Your task to perform on an android device: open a new tab in the chrome app Image 0: 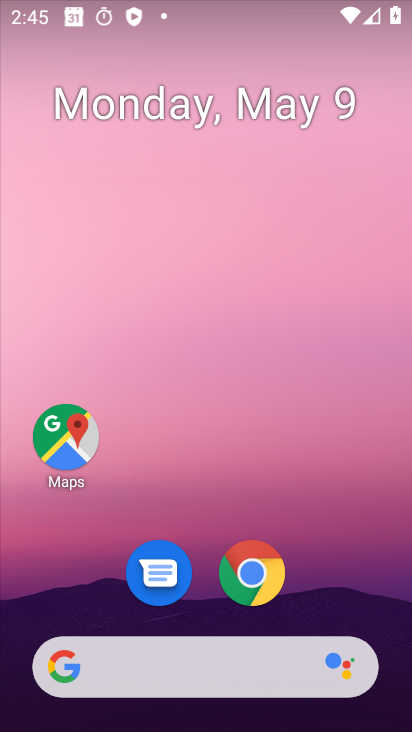
Step 0: drag from (290, 647) to (42, 4)
Your task to perform on an android device: open a new tab in the chrome app Image 1: 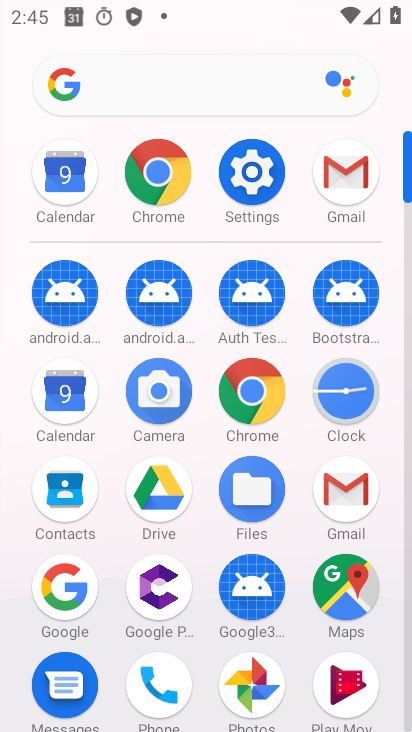
Step 1: click (159, 164)
Your task to perform on an android device: open a new tab in the chrome app Image 2: 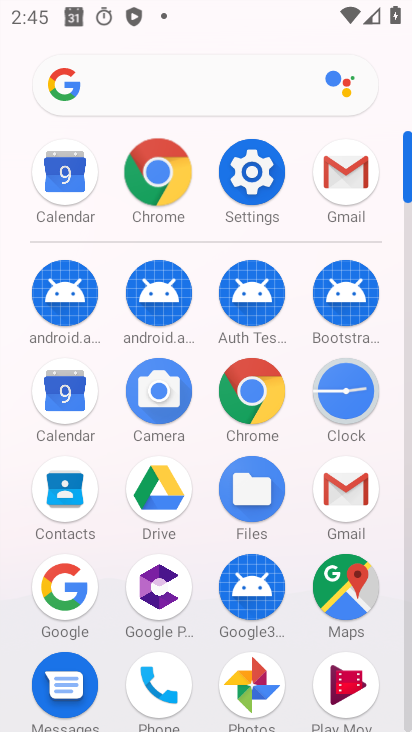
Step 2: click (155, 165)
Your task to perform on an android device: open a new tab in the chrome app Image 3: 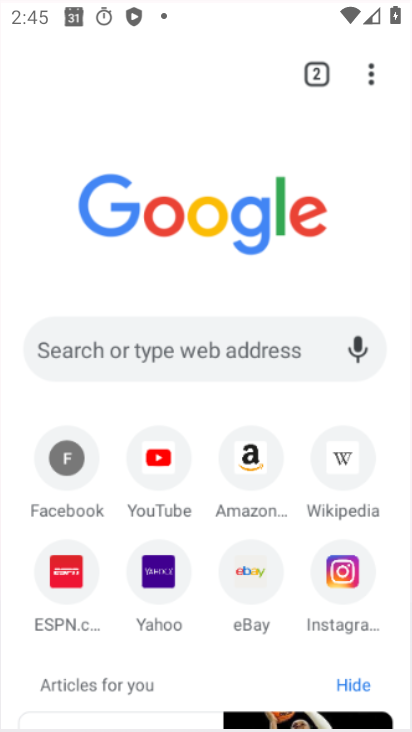
Step 3: click (152, 166)
Your task to perform on an android device: open a new tab in the chrome app Image 4: 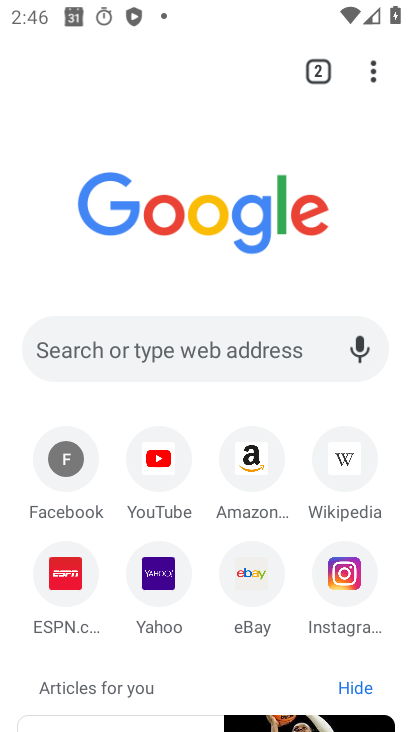
Step 4: click (382, 72)
Your task to perform on an android device: open a new tab in the chrome app Image 5: 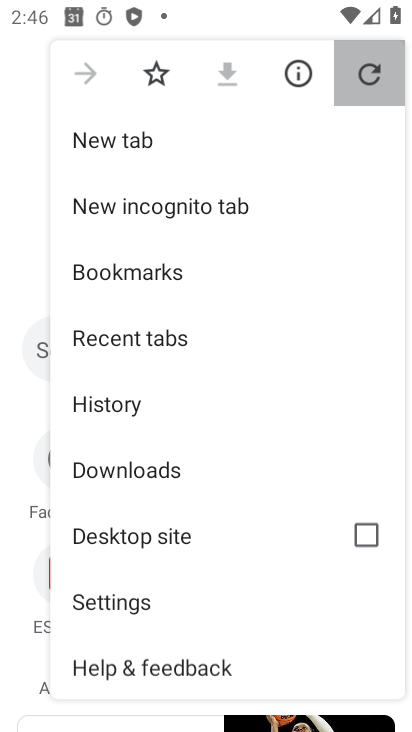
Step 5: click (382, 72)
Your task to perform on an android device: open a new tab in the chrome app Image 6: 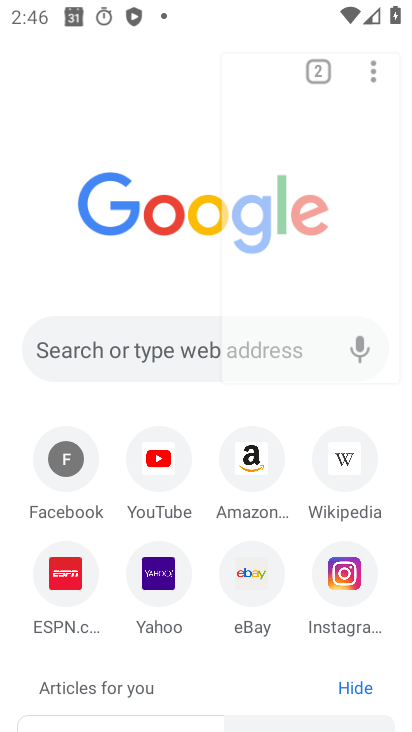
Step 6: drag from (366, 77) to (193, 234)
Your task to perform on an android device: open a new tab in the chrome app Image 7: 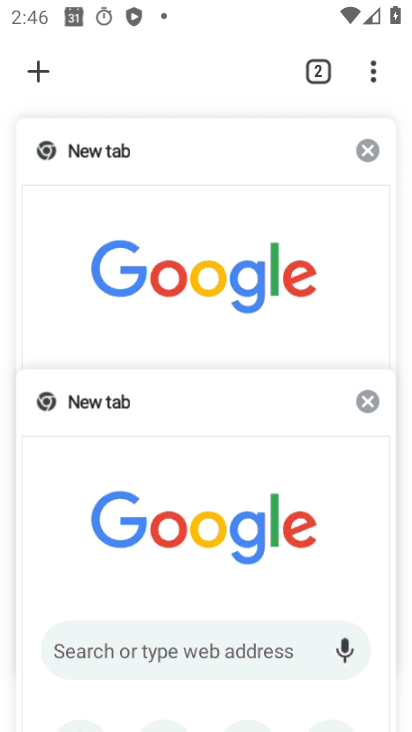
Step 7: click (370, 78)
Your task to perform on an android device: open a new tab in the chrome app Image 8: 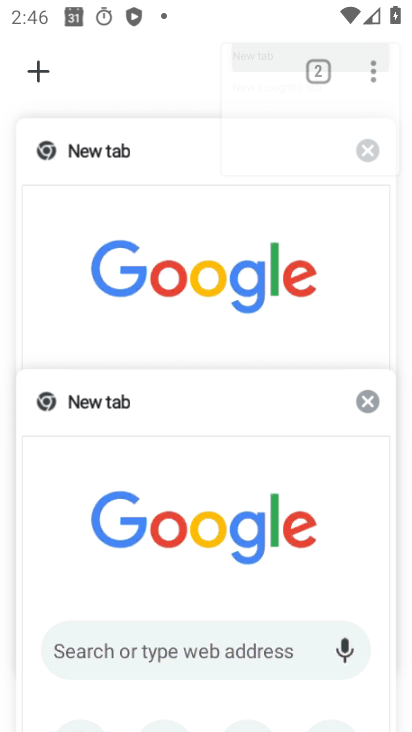
Step 8: click (369, 77)
Your task to perform on an android device: open a new tab in the chrome app Image 9: 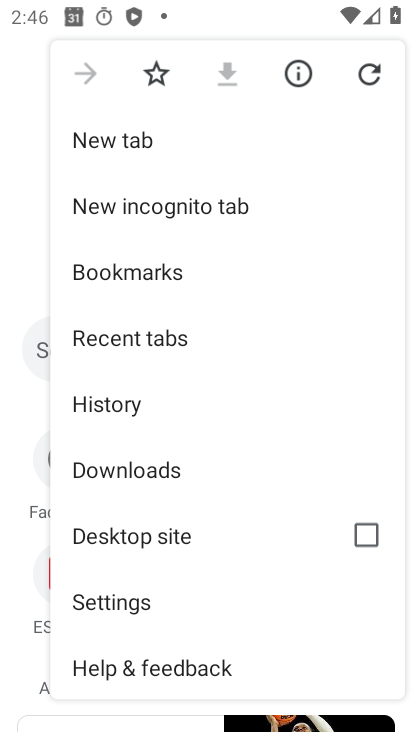
Step 9: click (129, 132)
Your task to perform on an android device: open a new tab in the chrome app Image 10: 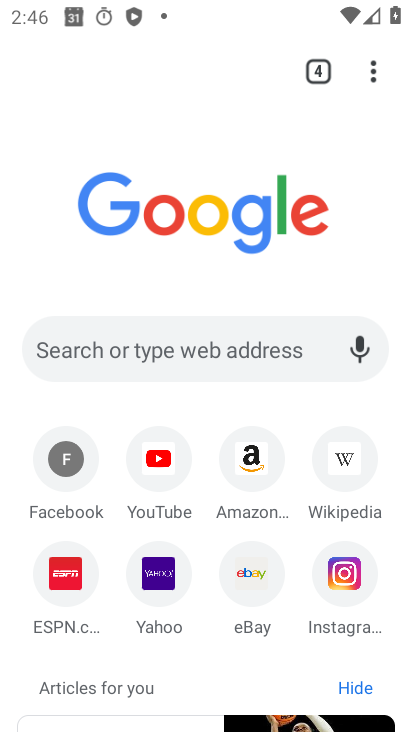
Step 10: task complete